Your task to perform on an android device: turn on bluetooth scan Image 0: 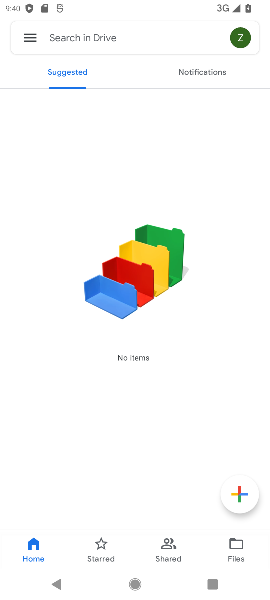
Step 0: press home button
Your task to perform on an android device: turn on bluetooth scan Image 1: 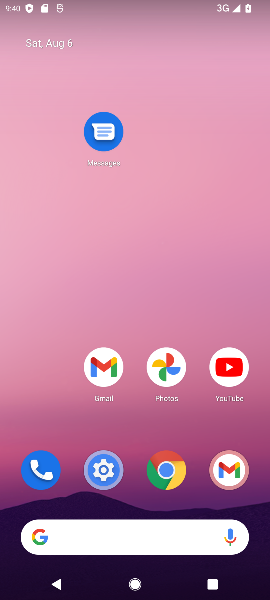
Step 1: drag from (148, 584) to (125, 146)
Your task to perform on an android device: turn on bluetooth scan Image 2: 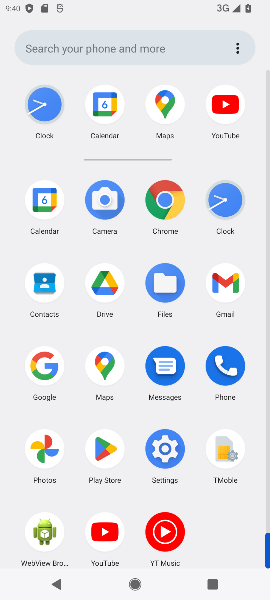
Step 2: click (172, 440)
Your task to perform on an android device: turn on bluetooth scan Image 3: 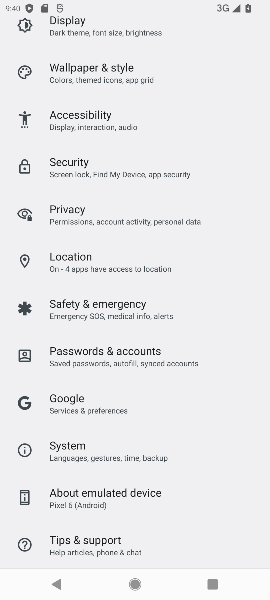
Step 3: drag from (178, 295) to (172, 530)
Your task to perform on an android device: turn on bluetooth scan Image 4: 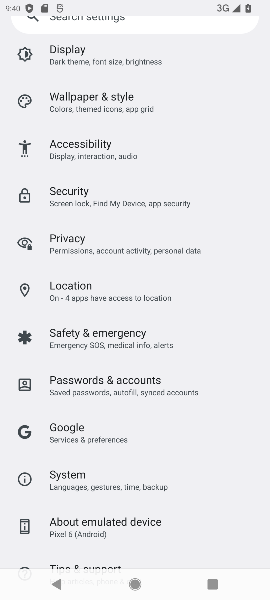
Step 4: drag from (167, 240) to (145, 531)
Your task to perform on an android device: turn on bluetooth scan Image 5: 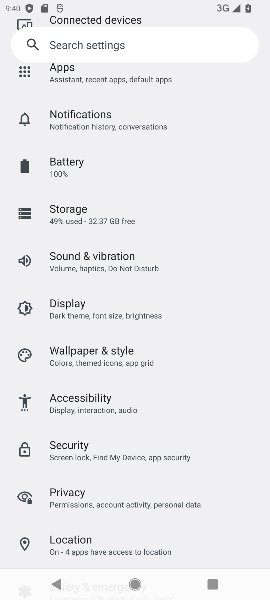
Step 5: drag from (154, 253) to (164, 565)
Your task to perform on an android device: turn on bluetooth scan Image 6: 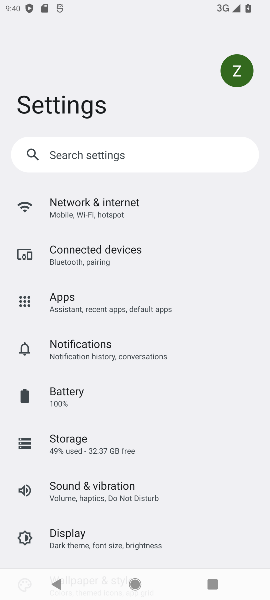
Step 6: drag from (146, 490) to (155, 247)
Your task to perform on an android device: turn on bluetooth scan Image 7: 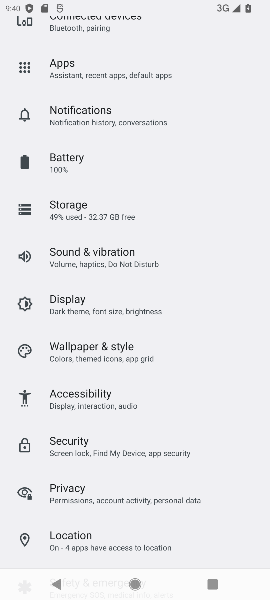
Step 7: drag from (114, 250) to (110, 524)
Your task to perform on an android device: turn on bluetooth scan Image 8: 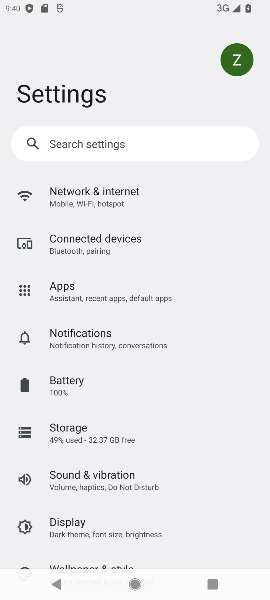
Step 8: click (105, 247)
Your task to perform on an android device: turn on bluetooth scan Image 9: 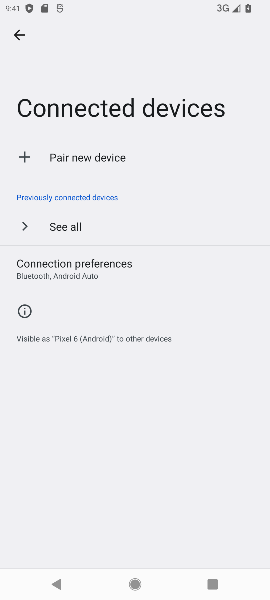
Step 9: click (104, 265)
Your task to perform on an android device: turn on bluetooth scan Image 10: 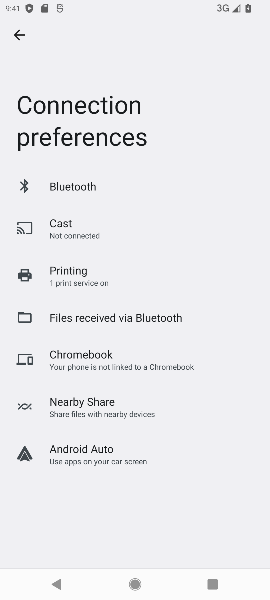
Step 10: click (97, 184)
Your task to perform on an android device: turn on bluetooth scan Image 11: 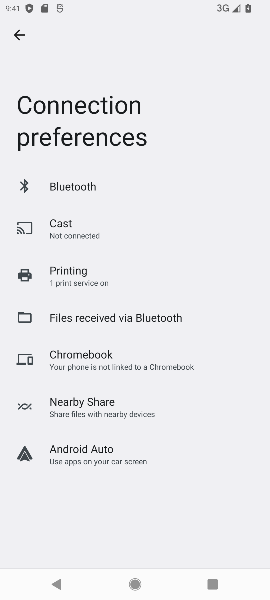
Step 11: click (96, 181)
Your task to perform on an android device: turn on bluetooth scan Image 12: 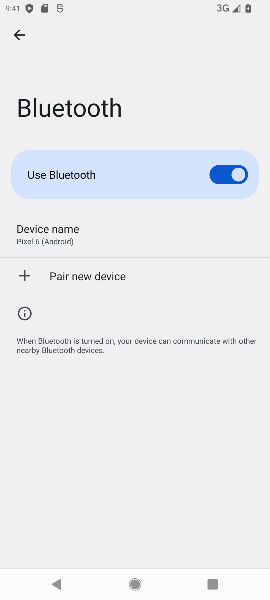
Step 12: task complete